Your task to perform on an android device: Is it going to rain tomorrow? Image 0: 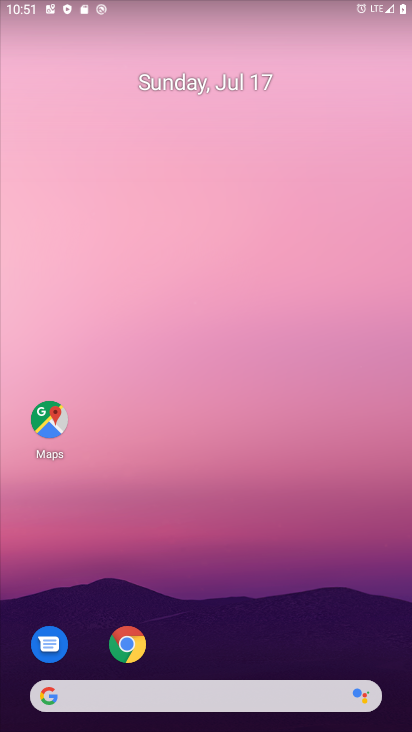
Step 0: drag from (298, 668) to (328, 0)
Your task to perform on an android device: Is it going to rain tomorrow? Image 1: 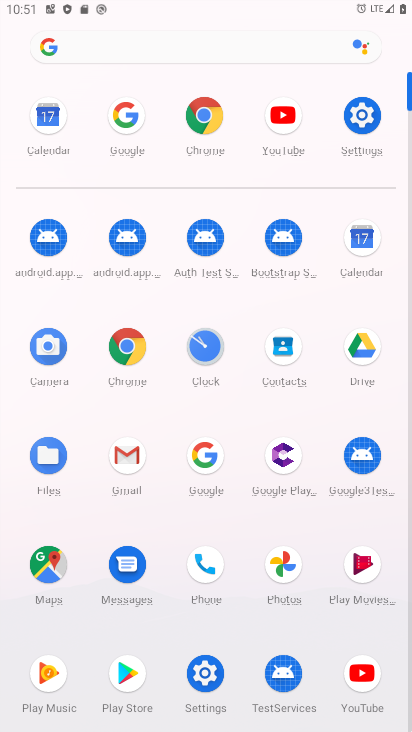
Step 1: click (207, 456)
Your task to perform on an android device: Is it going to rain tomorrow? Image 2: 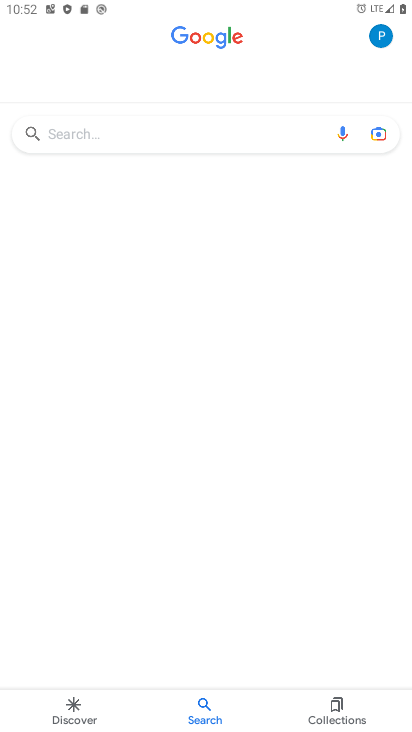
Step 2: drag from (212, 420) to (303, 725)
Your task to perform on an android device: Is it going to rain tomorrow? Image 3: 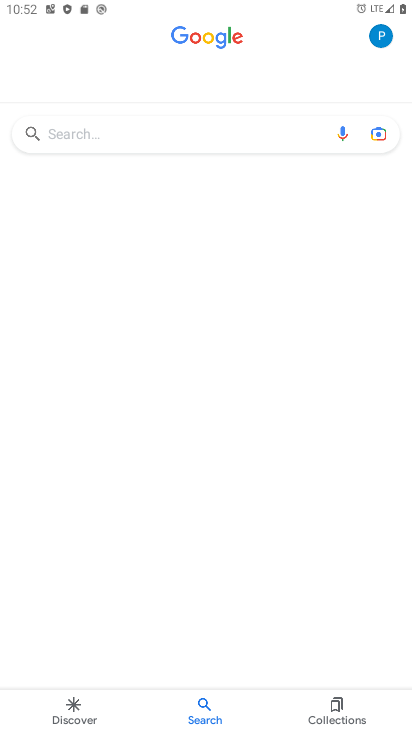
Step 3: drag from (274, 183) to (301, 696)
Your task to perform on an android device: Is it going to rain tomorrow? Image 4: 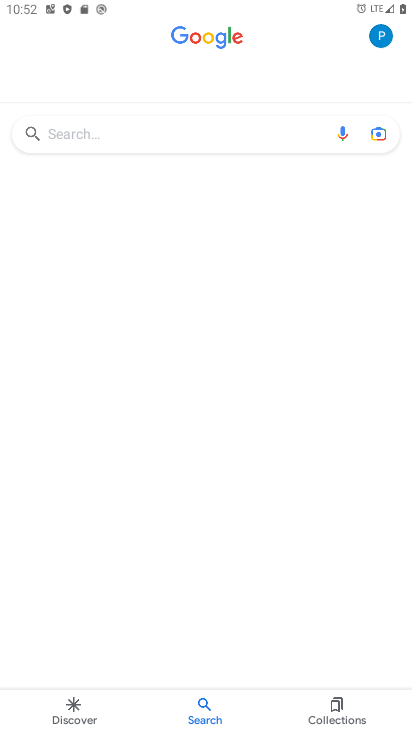
Step 4: press back button
Your task to perform on an android device: Is it going to rain tomorrow? Image 5: 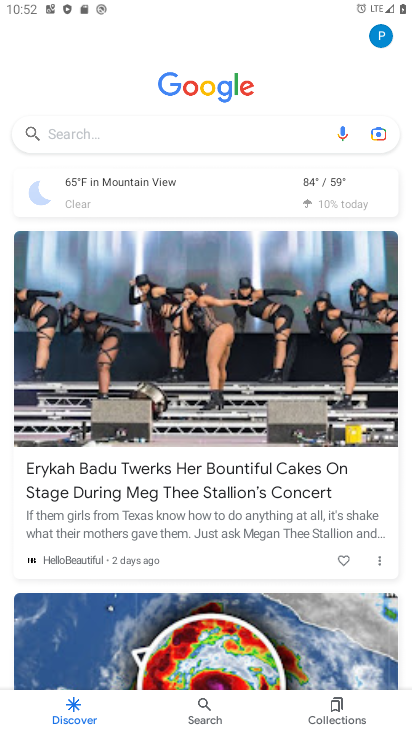
Step 5: click (152, 189)
Your task to perform on an android device: Is it going to rain tomorrow? Image 6: 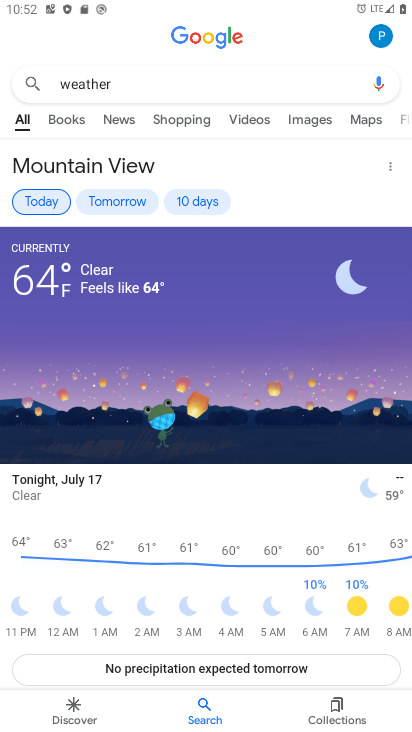
Step 6: drag from (360, 296) to (408, 30)
Your task to perform on an android device: Is it going to rain tomorrow? Image 7: 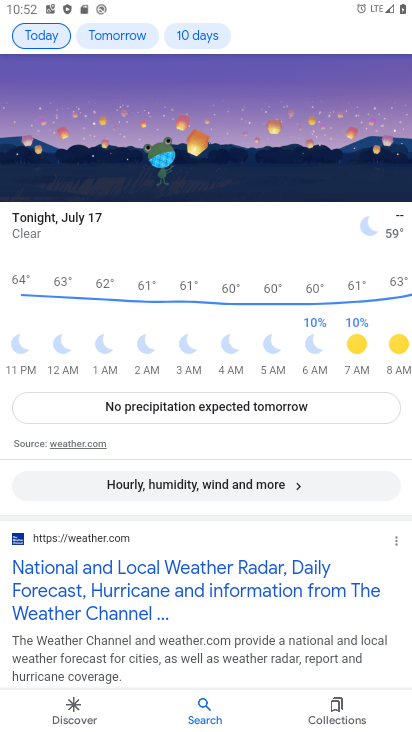
Step 7: drag from (300, 216) to (356, 730)
Your task to perform on an android device: Is it going to rain tomorrow? Image 8: 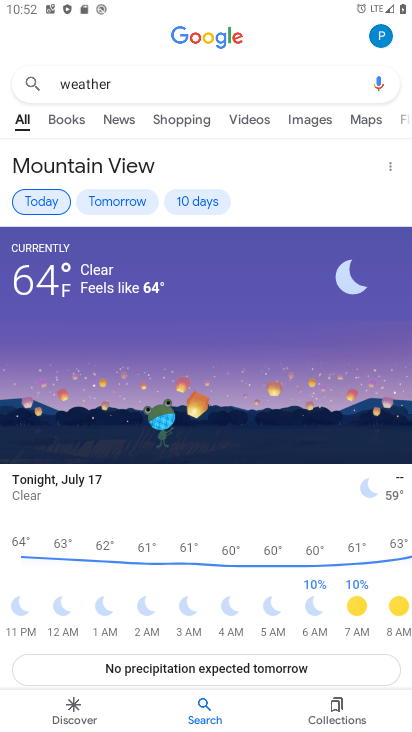
Step 8: click (121, 193)
Your task to perform on an android device: Is it going to rain tomorrow? Image 9: 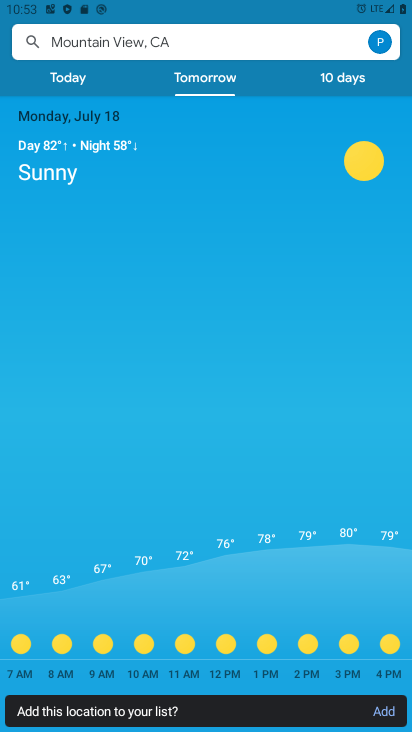
Step 9: task complete